Your task to perform on an android device: turn off sleep mode Image 0: 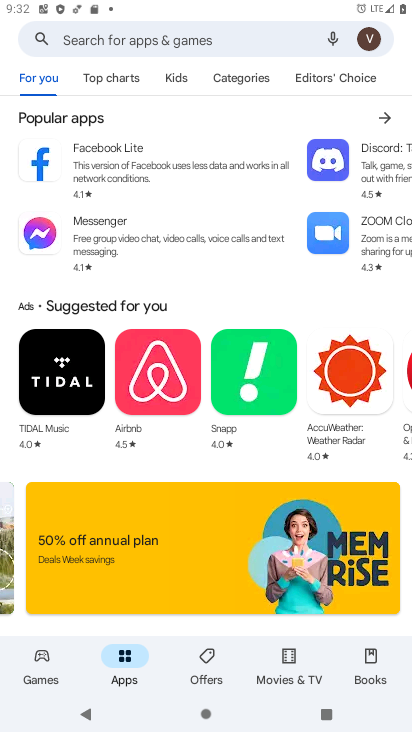
Step 0: drag from (382, 602) to (281, 50)
Your task to perform on an android device: turn off sleep mode Image 1: 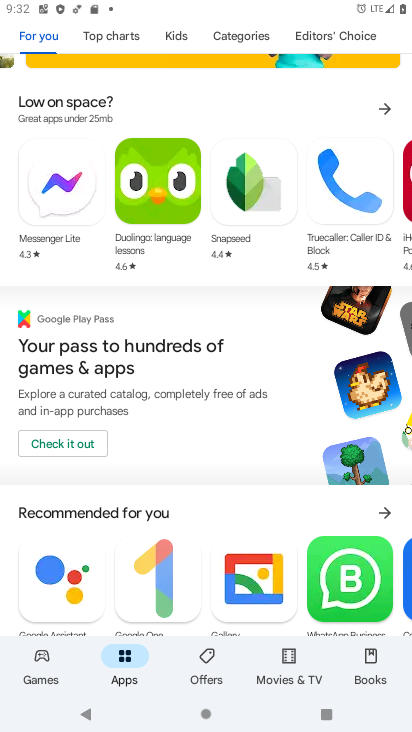
Step 1: press home button
Your task to perform on an android device: turn off sleep mode Image 2: 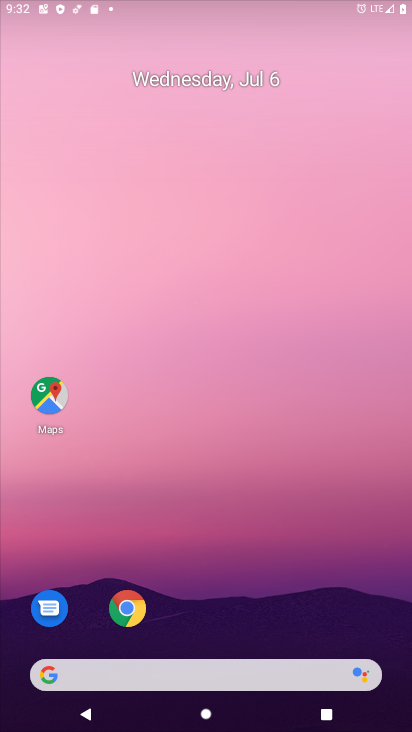
Step 2: drag from (344, 508) to (147, 22)
Your task to perform on an android device: turn off sleep mode Image 3: 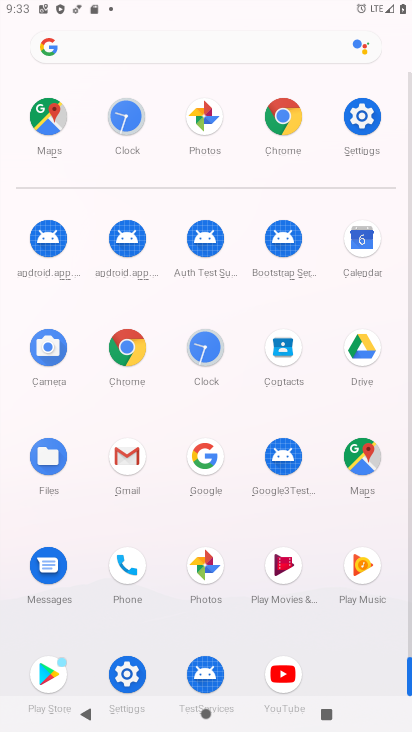
Step 3: click (346, 118)
Your task to perform on an android device: turn off sleep mode Image 4: 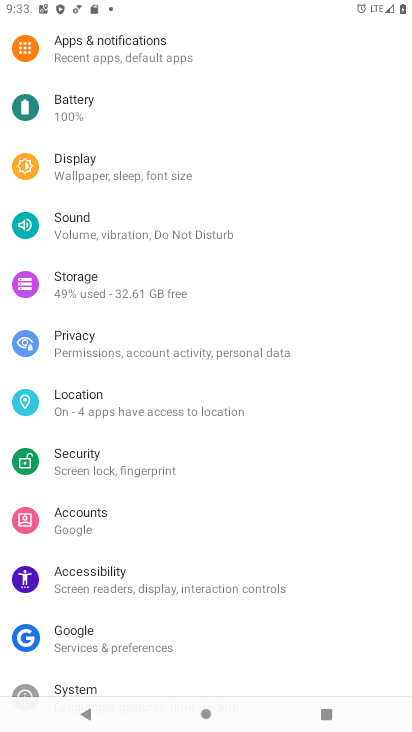
Step 4: task complete